Your task to perform on an android device: Go to calendar. Show me events next week Image 0: 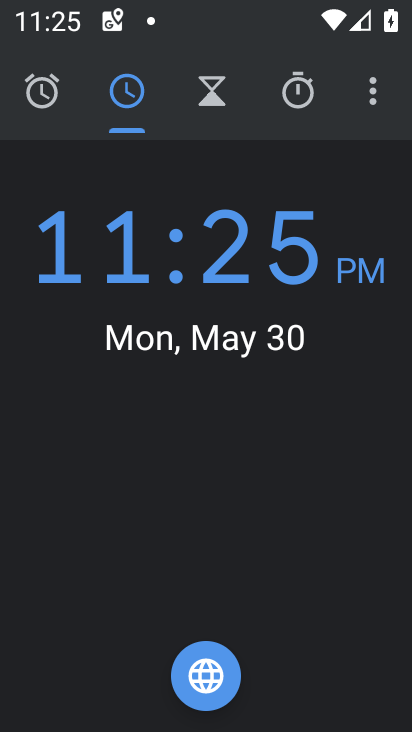
Step 0: press home button
Your task to perform on an android device: Go to calendar. Show me events next week Image 1: 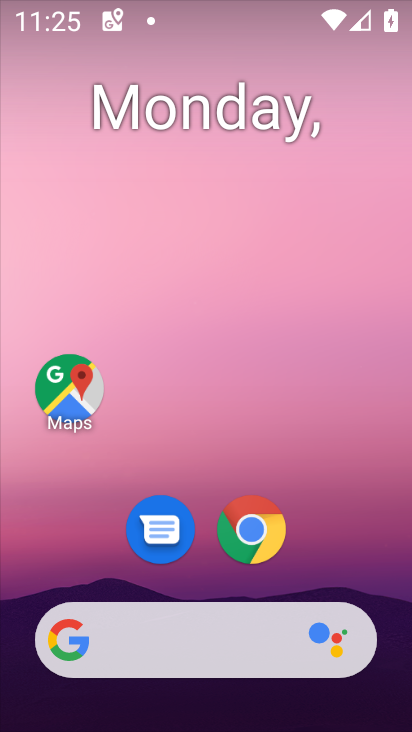
Step 1: drag from (177, 670) to (200, 57)
Your task to perform on an android device: Go to calendar. Show me events next week Image 2: 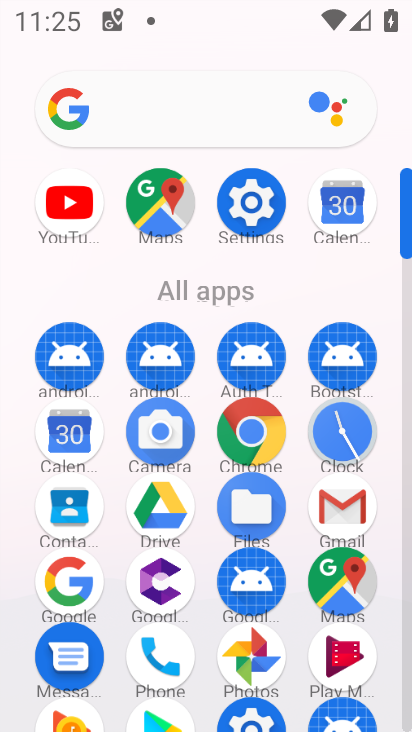
Step 2: click (77, 417)
Your task to perform on an android device: Go to calendar. Show me events next week Image 3: 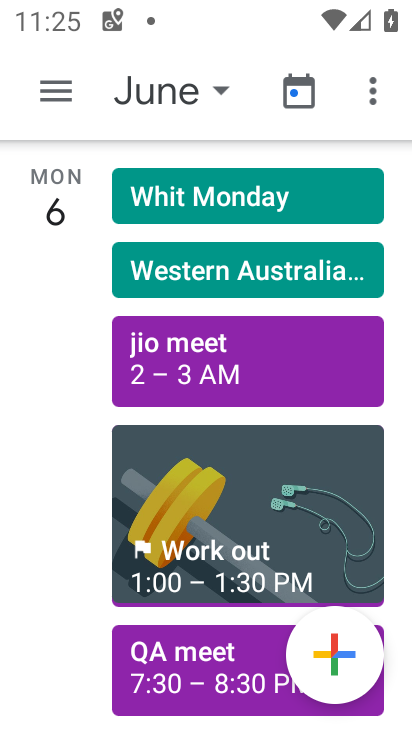
Step 3: click (58, 88)
Your task to perform on an android device: Go to calendar. Show me events next week Image 4: 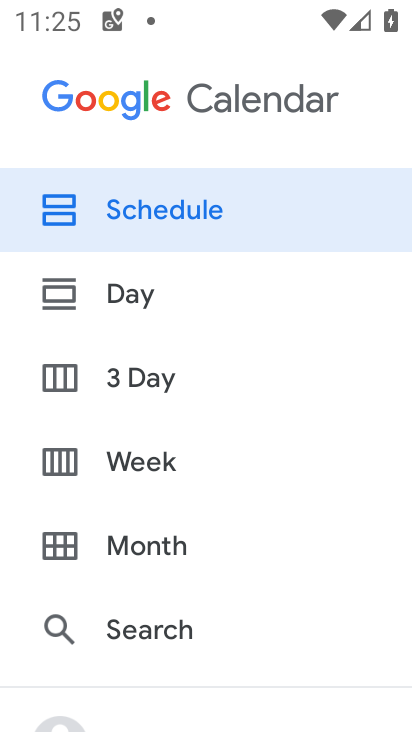
Step 4: click (146, 461)
Your task to perform on an android device: Go to calendar. Show me events next week Image 5: 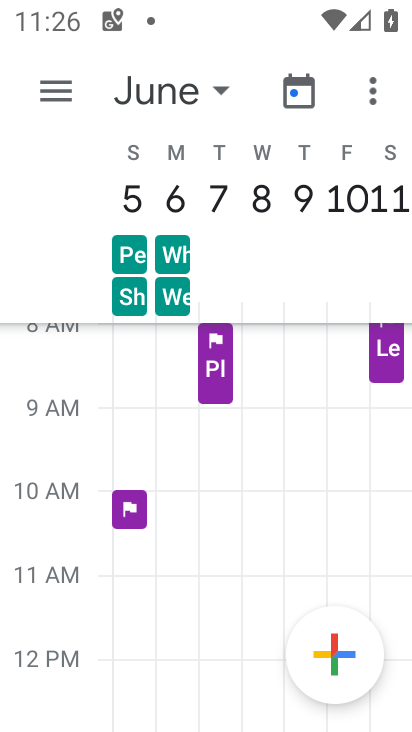
Step 5: task complete